Your task to perform on an android device: Go to wifi settings Image 0: 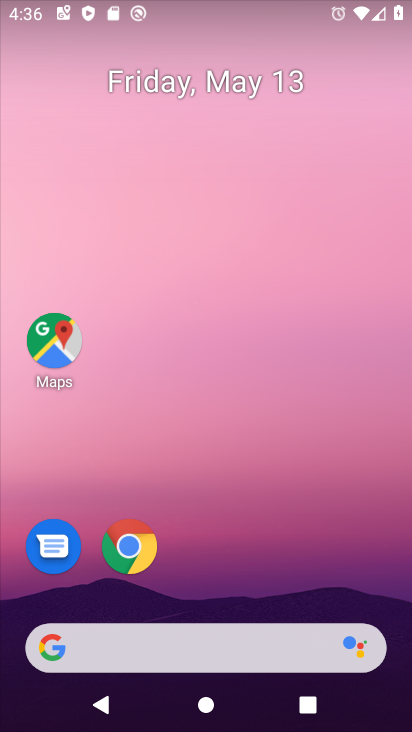
Step 0: drag from (244, 583) to (308, 0)
Your task to perform on an android device: Go to wifi settings Image 1: 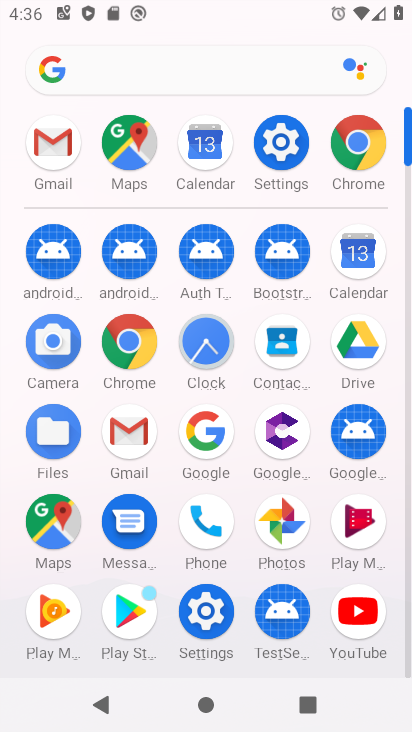
Step 1: click (288, 174)
Your task to perform on an android device: Go to wifi settings Image 2: 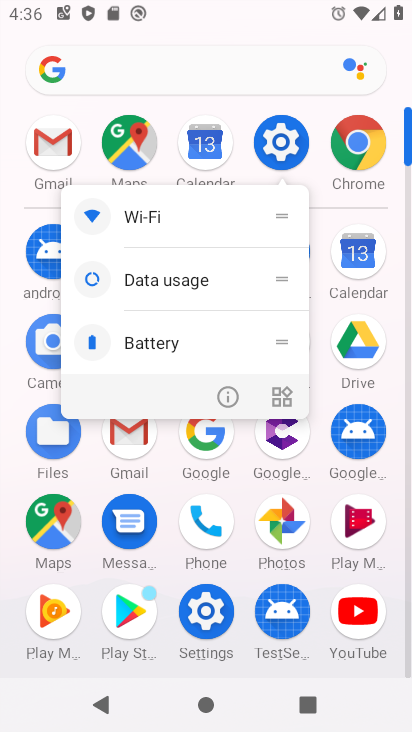
Step 2: click (178, 219)
Your task to perform on an android device: Go to wifi settings Image 3: 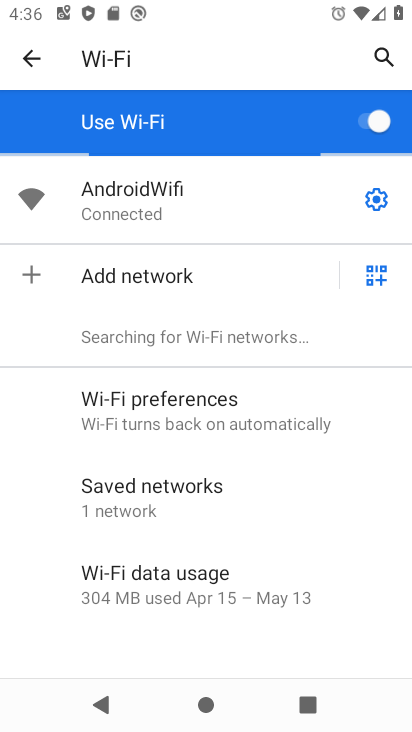
Step 3: task complete